Your task to perform on an android device: toggle data saver in the chrome app Image 0: 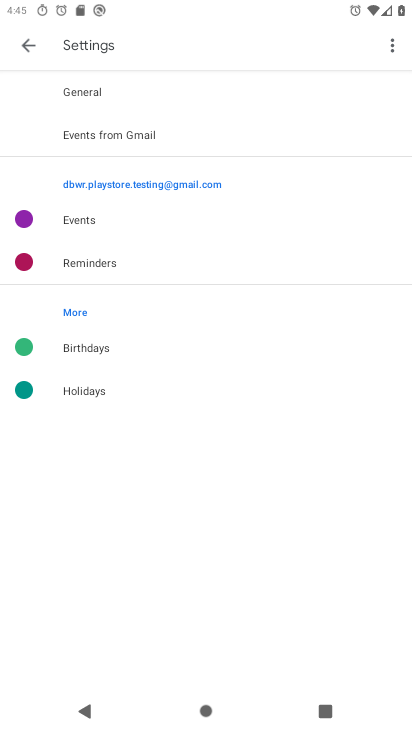
Step 0: press home button
Your task to perform on an android device: toggle data saver in the chrome app Image 1: 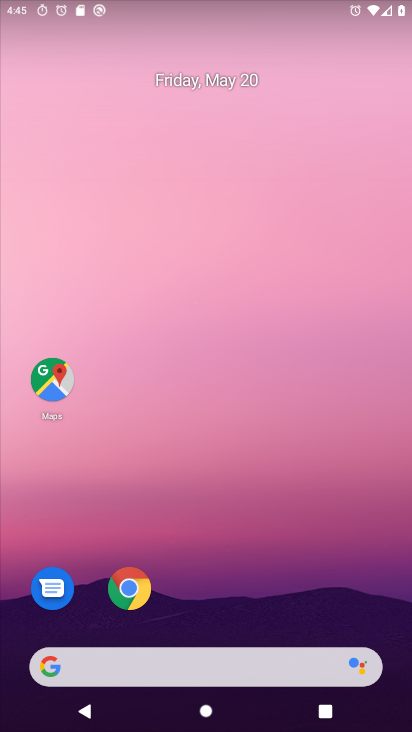
Step 1: drag from (242, 582) to (254, 111)
Your task to perform on an android device: toggle data saver in the chrome app Image 2: 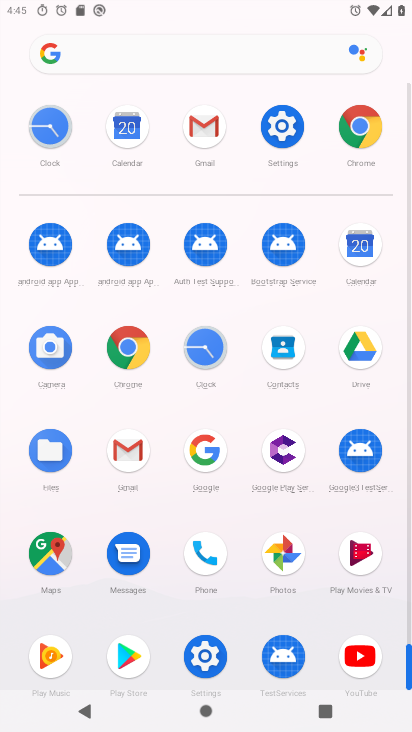
Step 2: click (120, 350)
Your task to perform on an android device: toggle data saver in the chrome app Image 3: 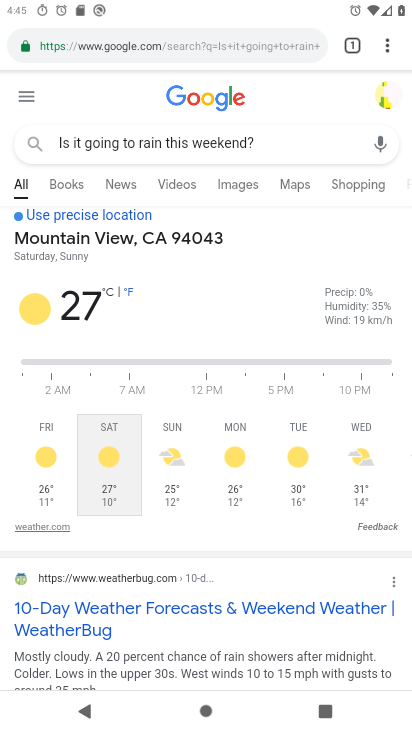
Step 3: drag from (387, 44) to (213, 497)
Your task to perform on an android device: toggle data saver in the chrome app Image 4: 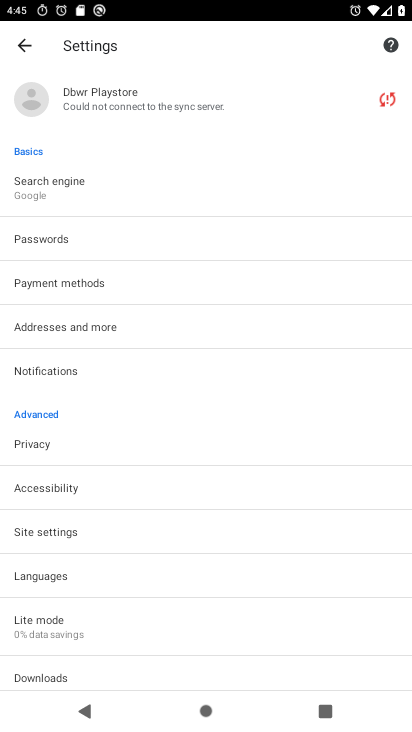
Step 4: click (24, 610)
Your task to perform on an android device: toggle data saver in the chrome app Image 5: 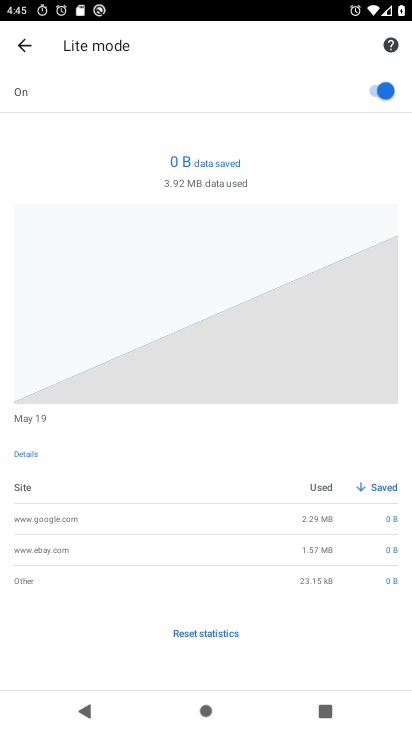
Step 5: click (382, 80)
Your task to perform on an android device: toggle data saver in the chrome app Image 6: 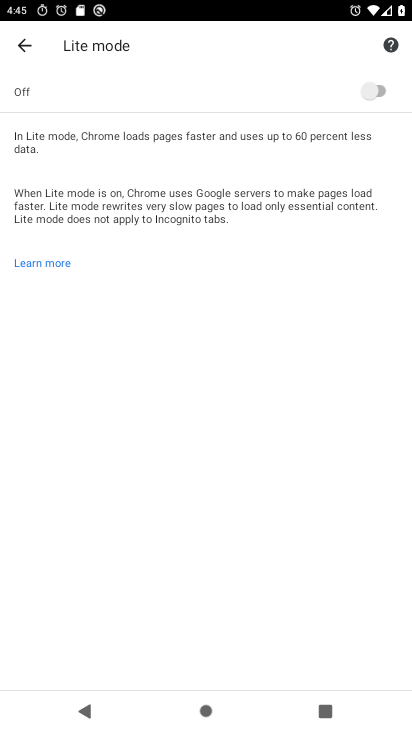
Step 6: task complete